Your task to perform on an android device: What is the recent news? Image 0: 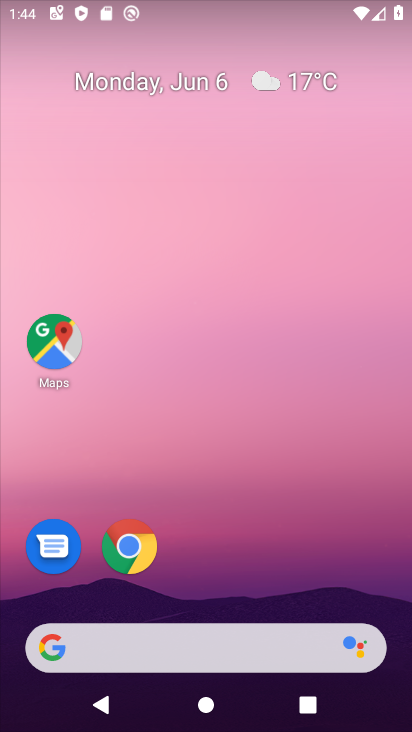
Step 0: drag from (222, 547) to (240, 176)
Your task to perform on an android device: What is the recent news? Image 1: 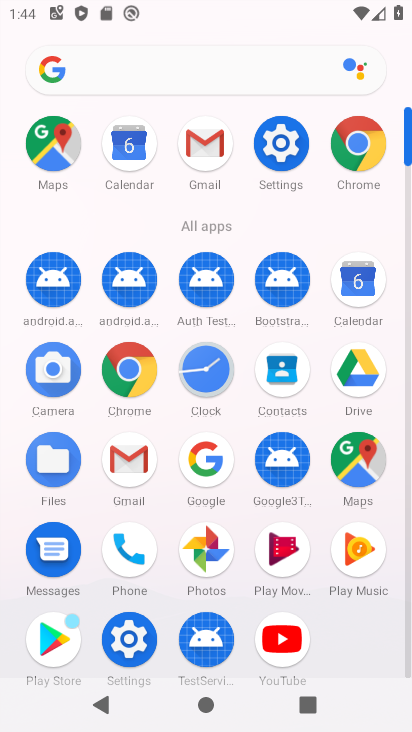
Step 1: click (137, 376)
Your task to perform on an android device: What is the recent news? Image 2: 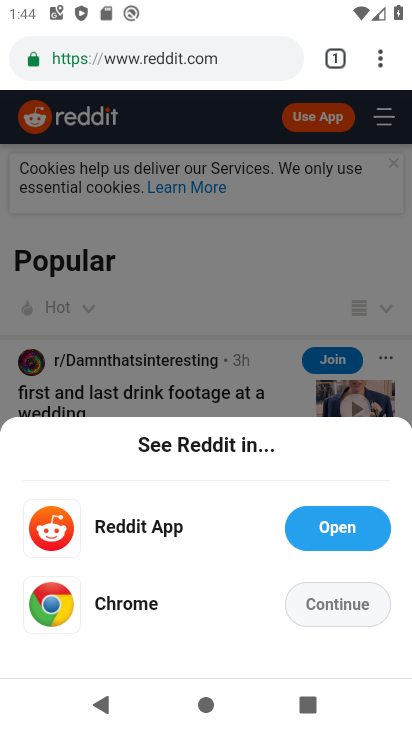
Step 2: click (242, 61)
Your task to perform on an android device: What is the recent news? Image 3: 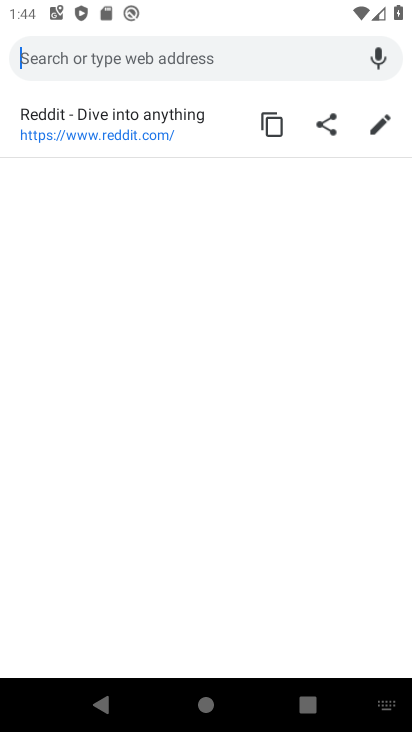
Step 3: type "news"
Your task to perform on an android device: What is the recent news? Image 4: 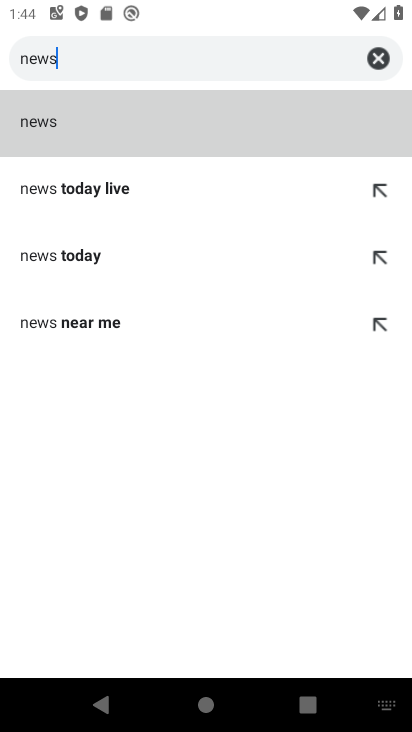
Step 4: click (44, 118)
Your task to perform on an android device: What is the recent news? Image 5: 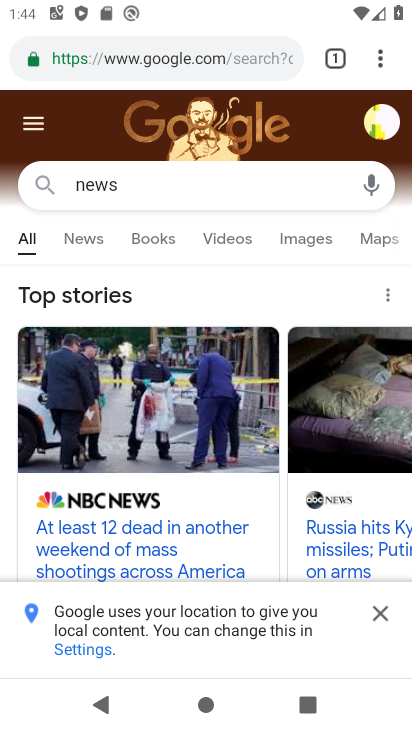
Step 5: click (99, 238)
Your task to perform on an android device: What is the recent news? Image 6: 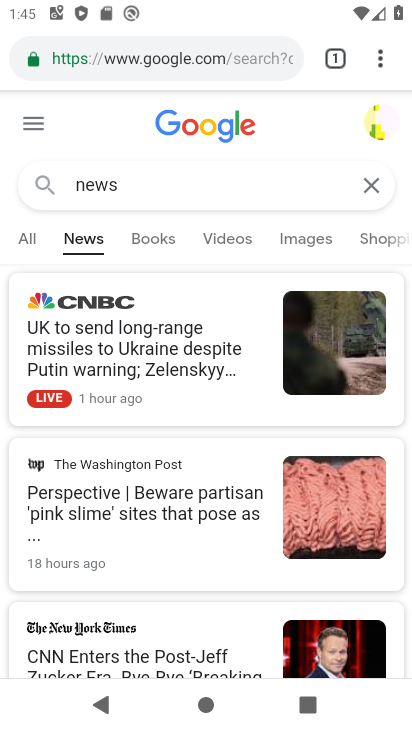
Step 6: task complete